Your task to perform on an android device: set the stopwatch Image 0: 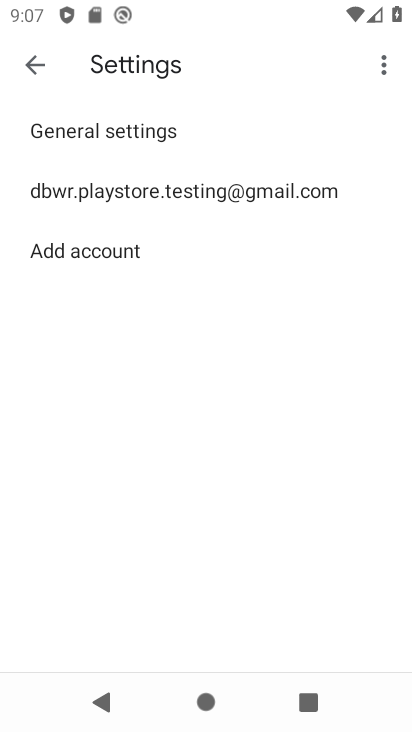
Step 0: press home button
Your task to perform on an android device: set the stopwatch Image 1: 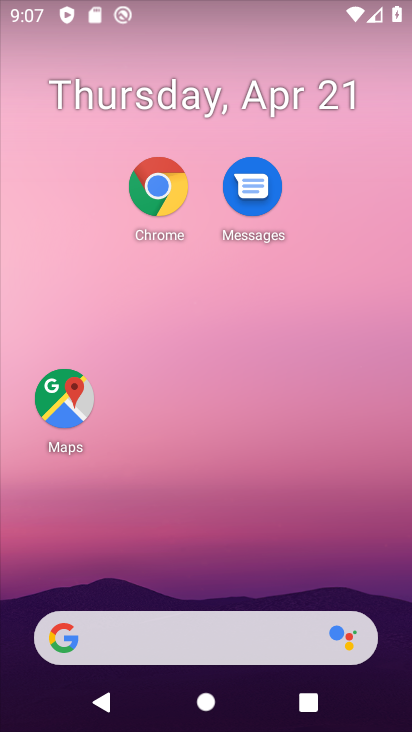
Step 1: drag from (202, 368) to (203, 45)
Your task to perform on an android device: set the stopwatch Image 2: 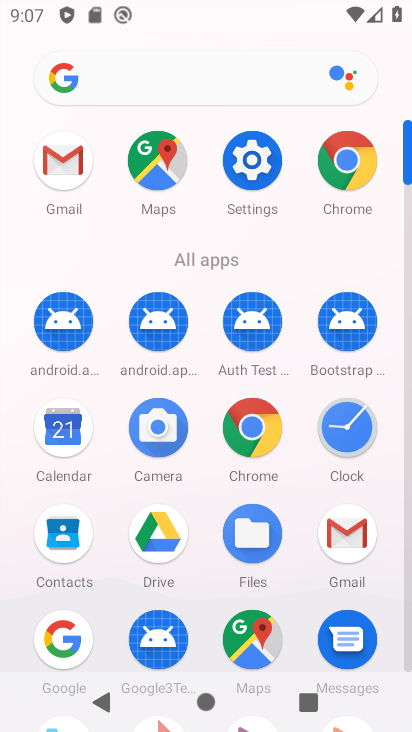
Step 2: click (344, 437)
Your task to perform on an android device: set the stopwatch Image 3: 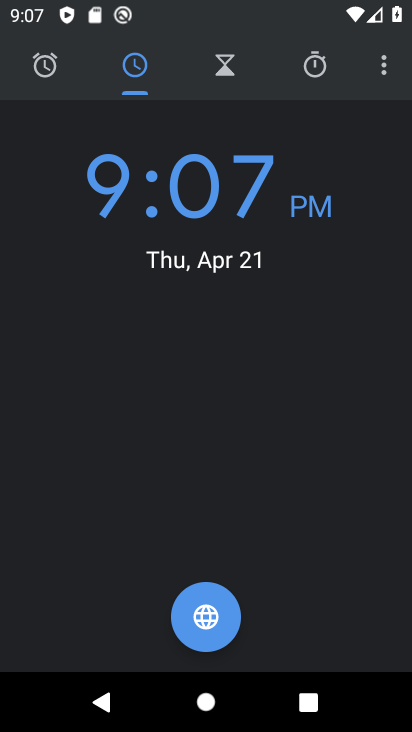
Step 3: click (312, 71)
Your task to perform on an android device: set the stopwatch Image 4: 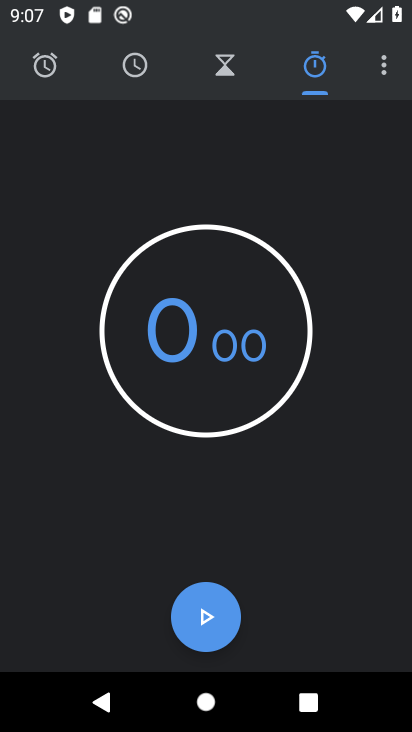
Step 4: click (209, 620)
Your task to perform on an android device: set the stopwatch Image 5: 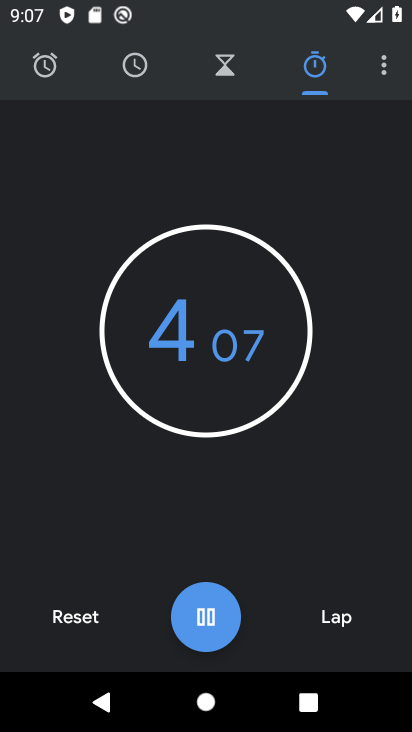
Step 5: task complete